Your task to perform on an android device: Search for sushi restaurants on Maps Image 0: 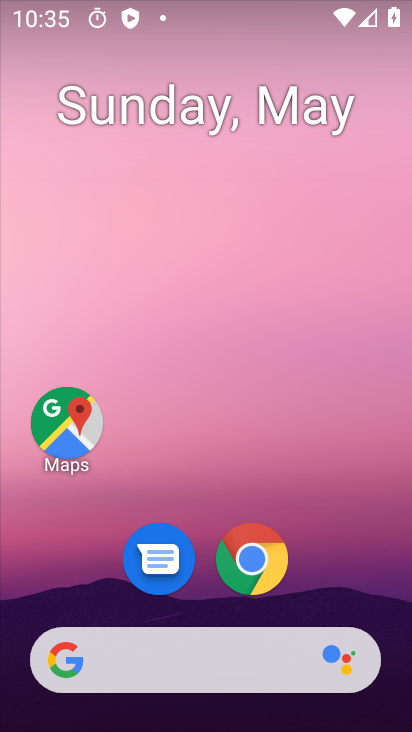
Step 0: drag from (340, 558) to (315, 159)
Your task to perform on an android device: Search for sushi restaurants on Maps Image 1: 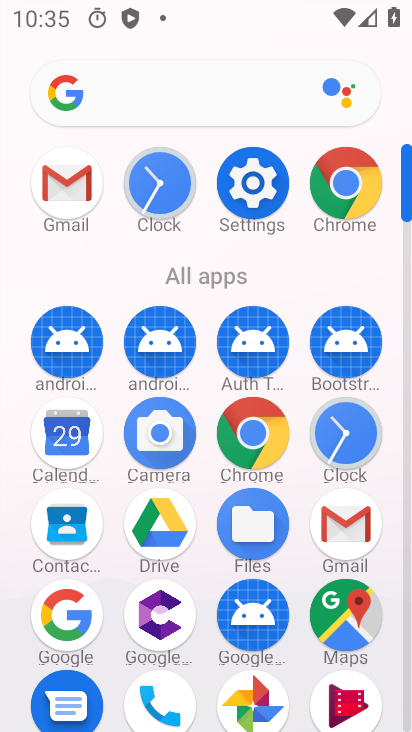
Step 1: click (310, 632)
Your task to perform on an android device: Search for sushi restaurants on Maps Image 2: 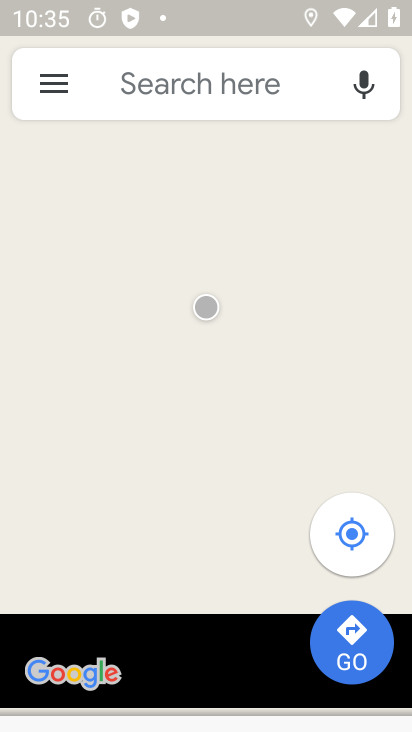
Step 2: click (189, 91)
Your task to perform on an android device: Search for sushi restaurants on Maps Image 3: 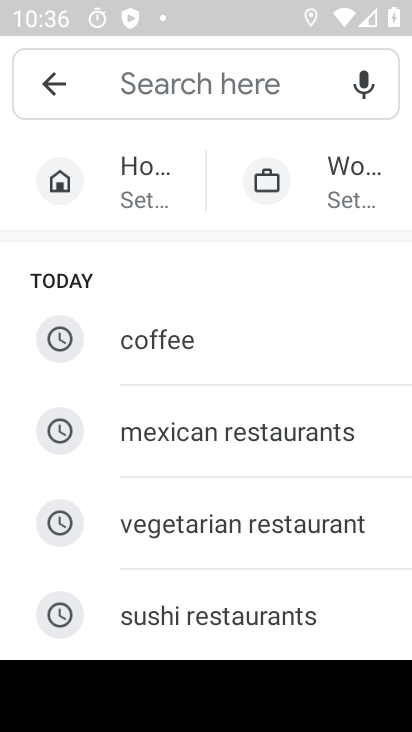
Step 3: type "sushi restaurants "
Your task to perform on an android device: Search for sushi restaurants on Maps Image 4: 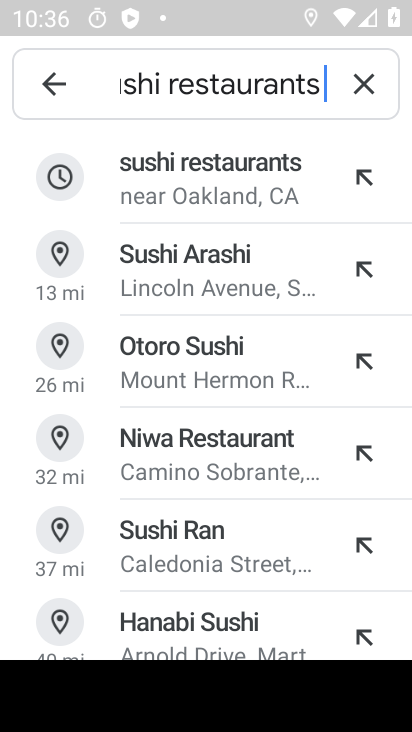
Step 4: click (149, 164)
Your task to perform on an android device: Search for sushi restaurants on Maps Image 5: 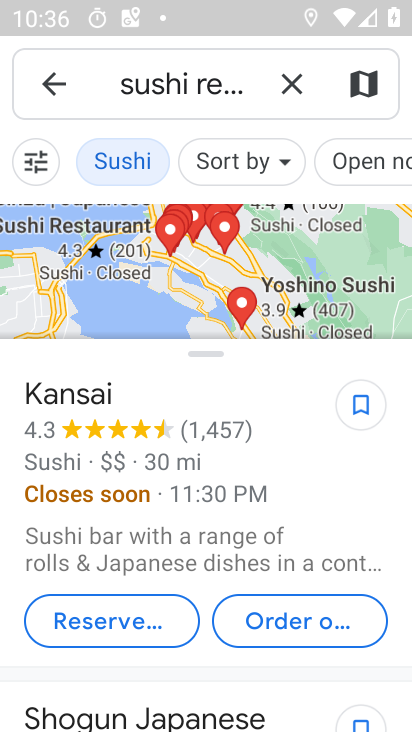
Step 5: task complete